Your task to perform on an android device: Open privacy settings Image 0: 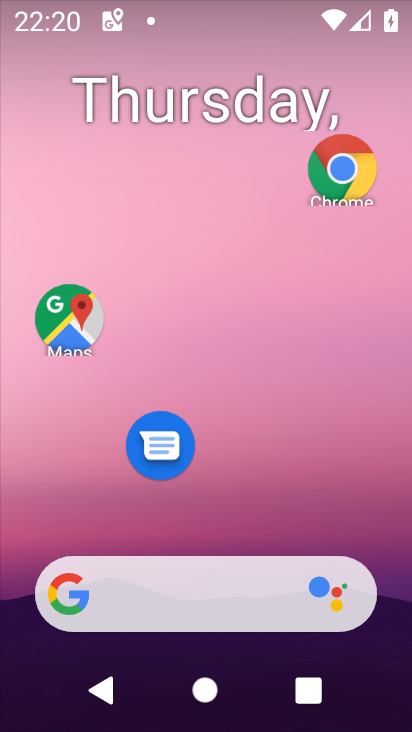
Step 0: drag from (210, 512) to (252, 80)
Your task to perform on an android device: Open privacy settings Image 1: 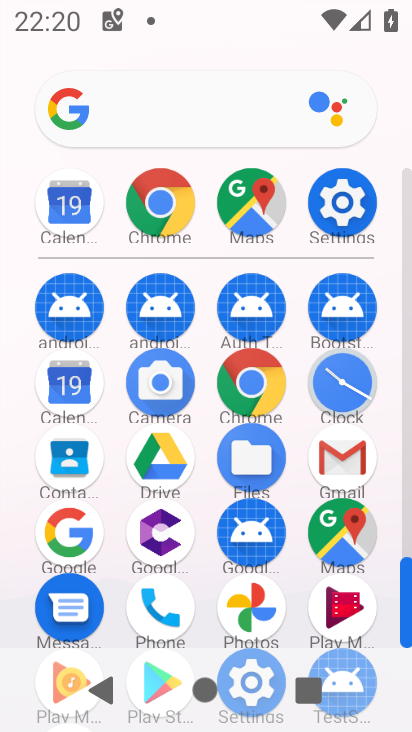
Step 1: click (342, 216)
Your task to perform on an android device: Open privacy settings Image 2: 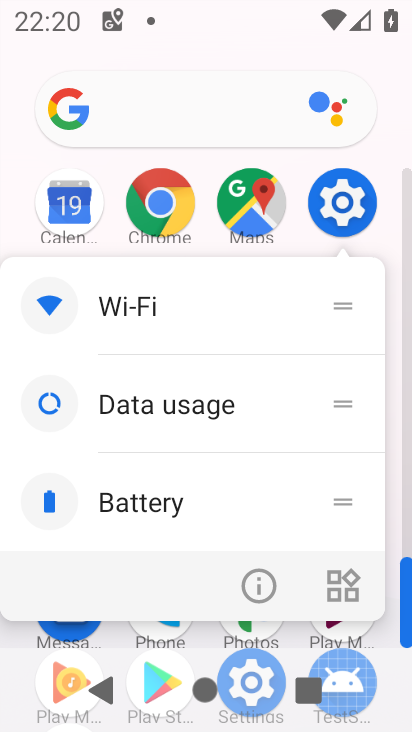
Step 2: click (251, 612)
Your task to perform on an android device: Open privacy settings Image 3: 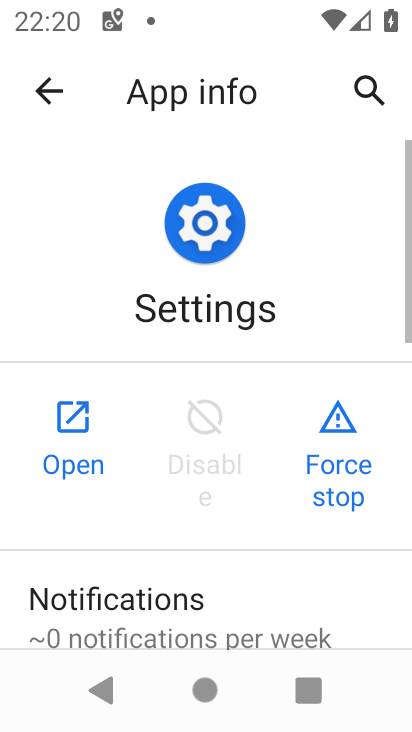
Step 3: click (114, 431)
Your task to perform on an android device: Open privacy settings Image 4: 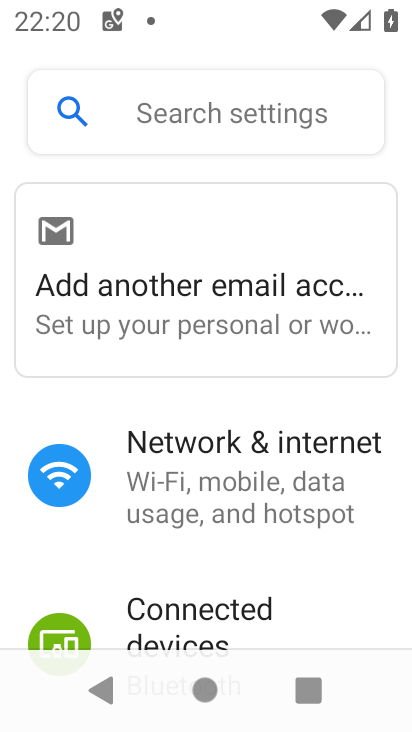
Step 4: drag from (150, 436) to (285, 153)
Your task to perform on an android device: Open privacy settings Image 5: 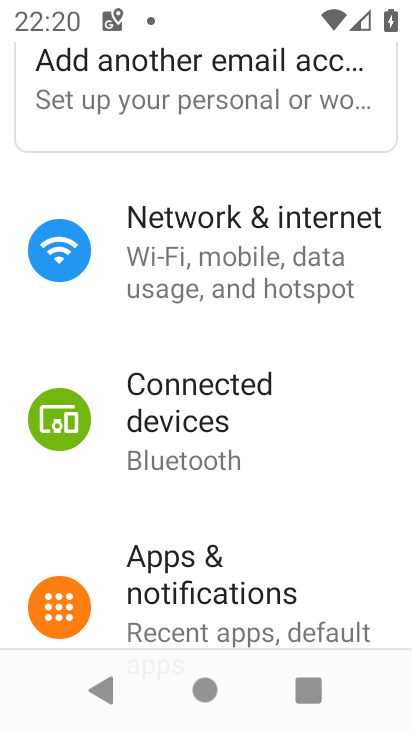
Step 5: drag from (235, 567) to (325, 8)
Your task to perform on an android device: Open privacy settings Image 6: 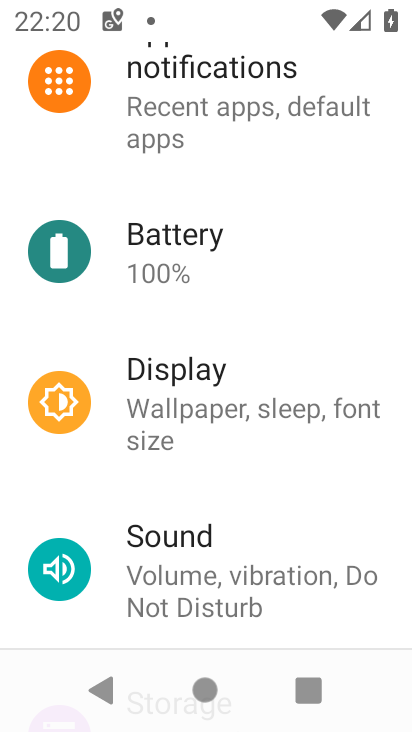
Step 6: drag from (225, 538) to (253, 43)
Your task to perform on an android device: Open privacy settings Image 7: 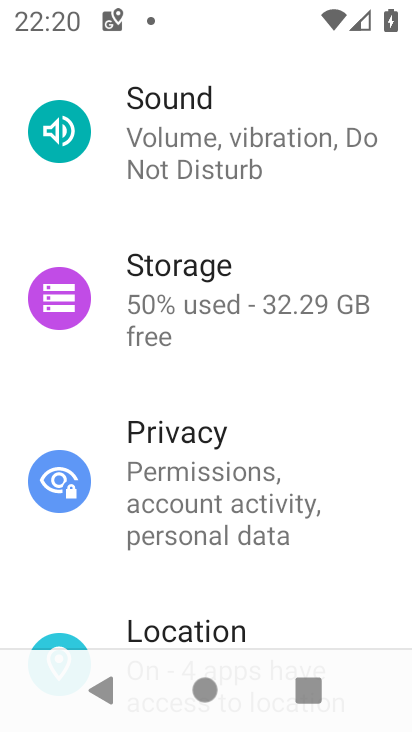
Step 7: drag from (231, 544) to (239, 182)
Your task to perform on an android device: Open privacy settings Image 8: 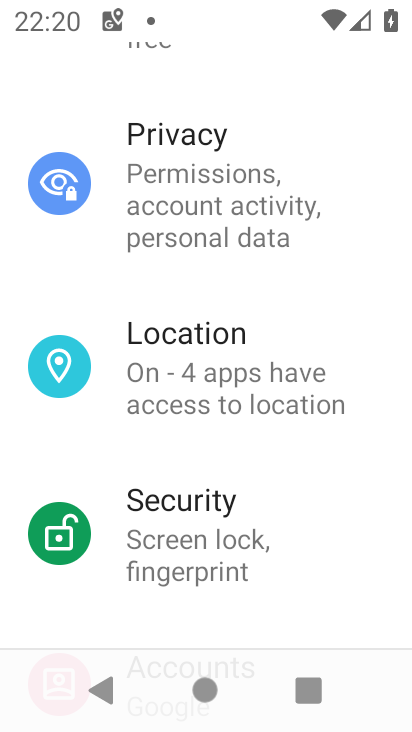
Step 8: click (192, 166)
Your task to perform on an android device: Open privacy settings Image 9: 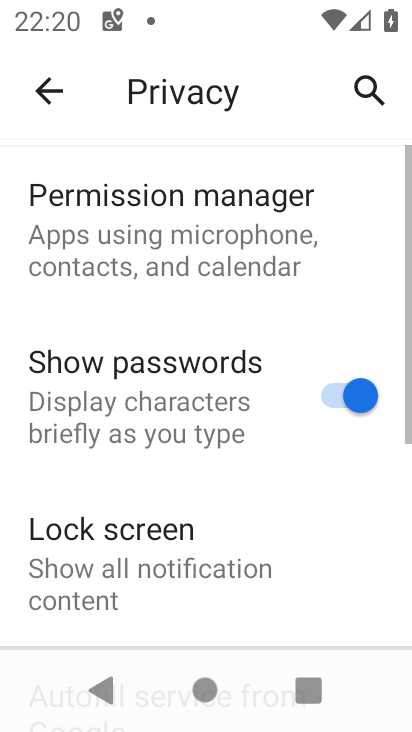
Step 9: task complete